Your task to perform on an android device: Check my email Image 0: 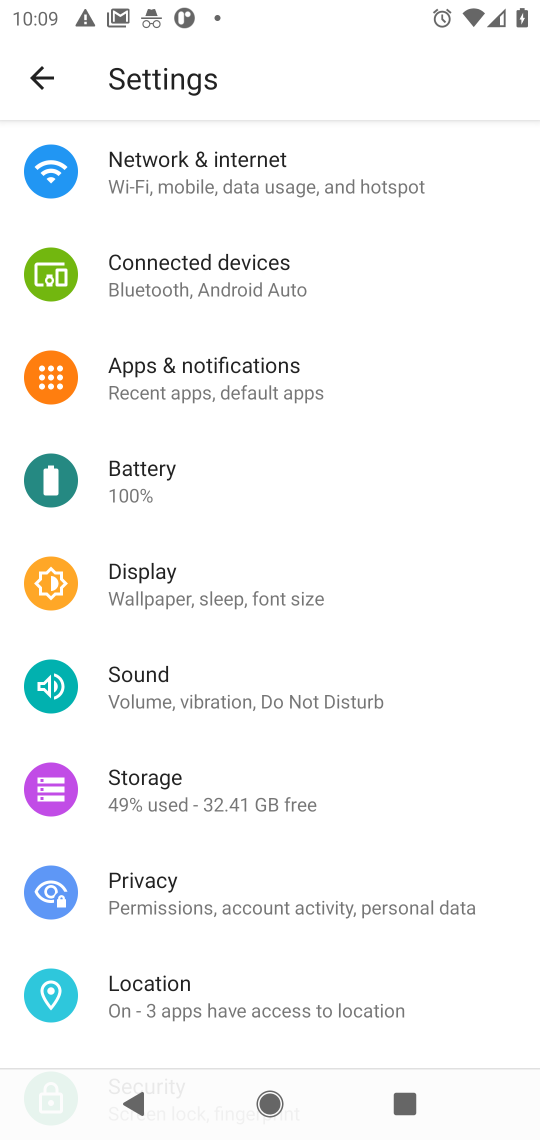
Step 0: press home button
Your task to perform on an android device: Check my email Image 1: 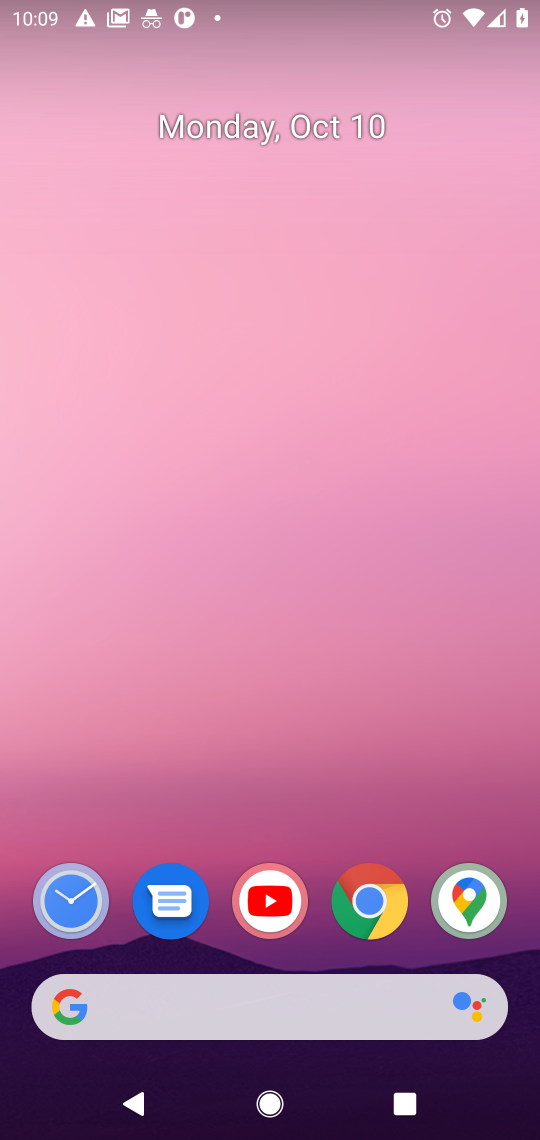
Step 1: drag from (457, 743) to (435, 155)
Your task to perform on an android device: Check my email Image 2: 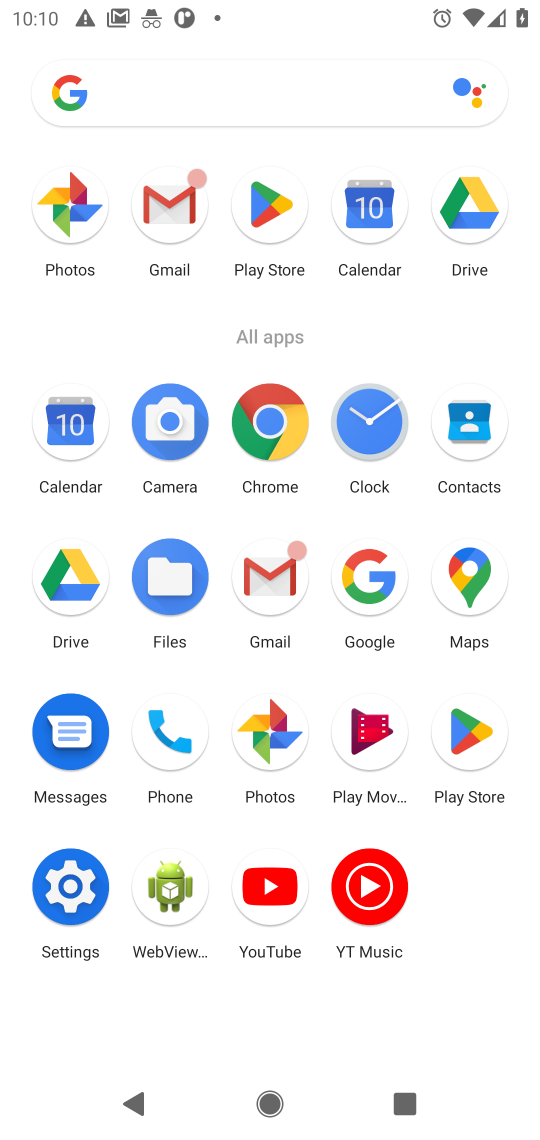
Step 2: click (284, 583)
Your task to perform on an android device: Check my email Image 3: 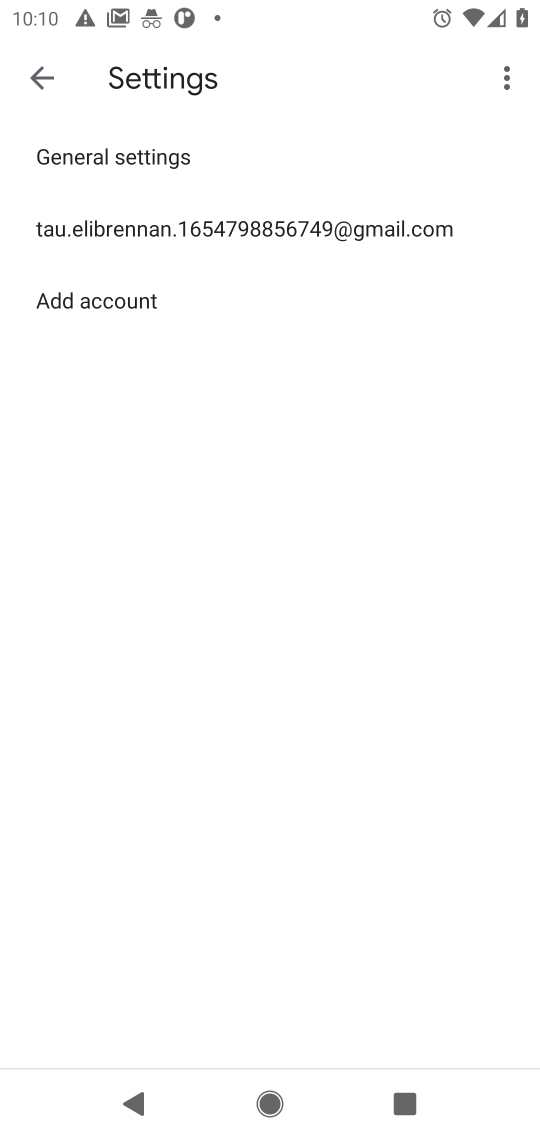
Step 3: press back button
Your task to perform on an android device: Check my email Image 4: 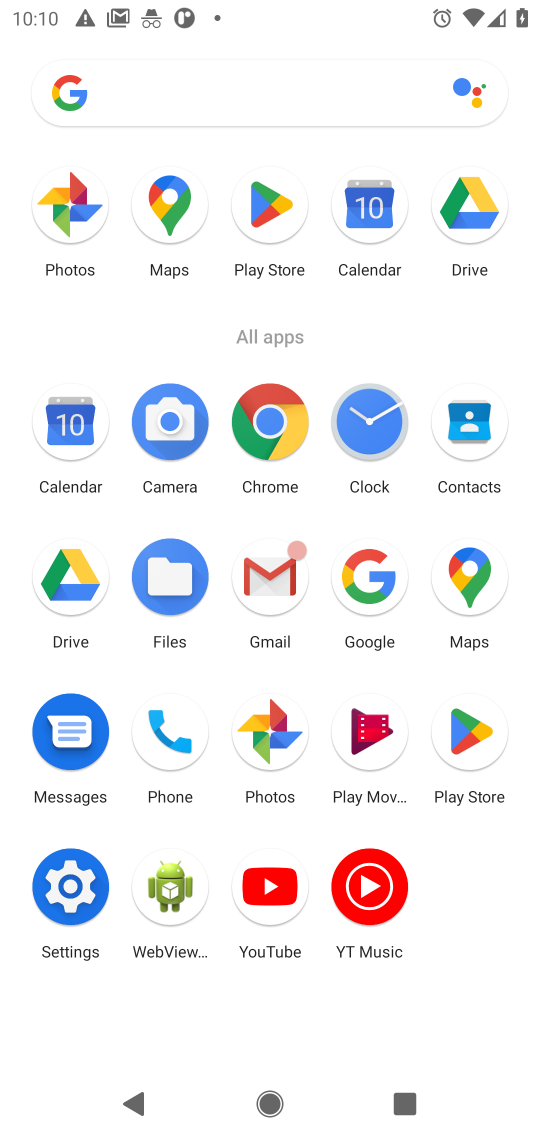
Step 4: click (272, 575)
Your task to perform on an android device: Check my email Image 5: 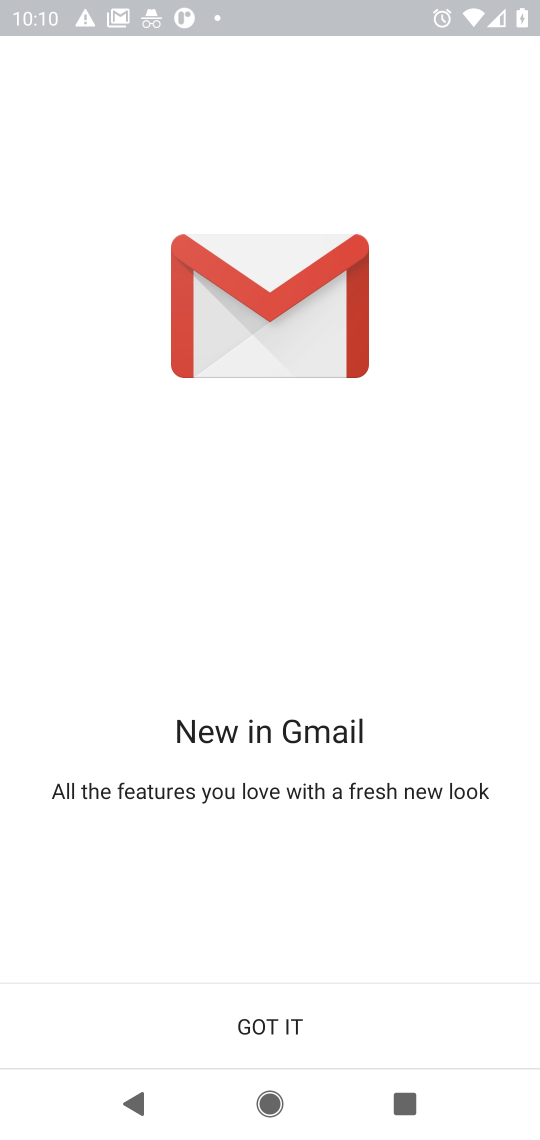
Step 5: click (266, 1024)
Your task to perform on an android device: Check my email Image 6: 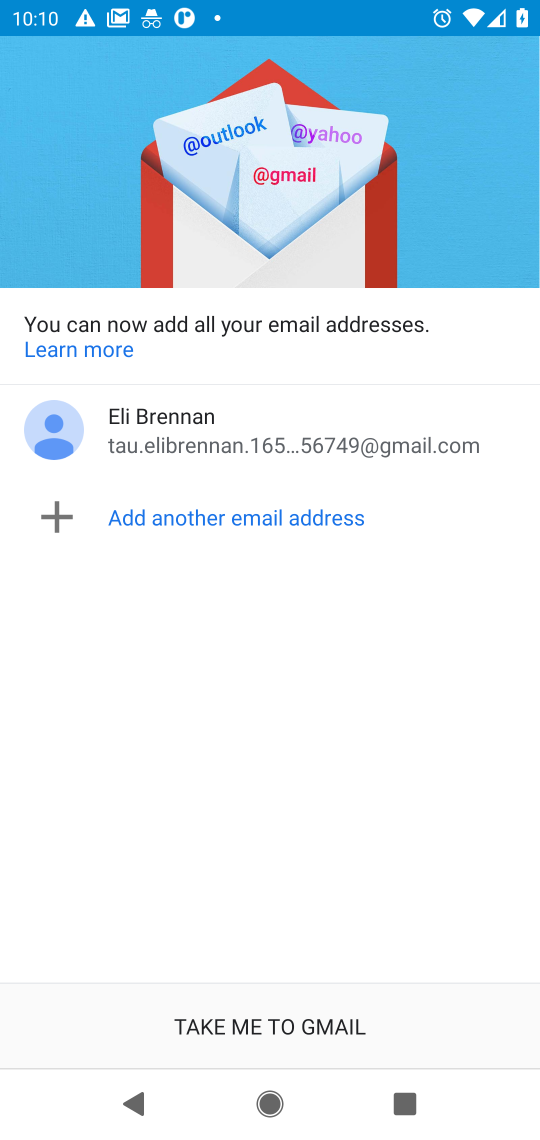
Step 6: click (266, 1024)
Your task to perform on an android device: Check my email Image 7: 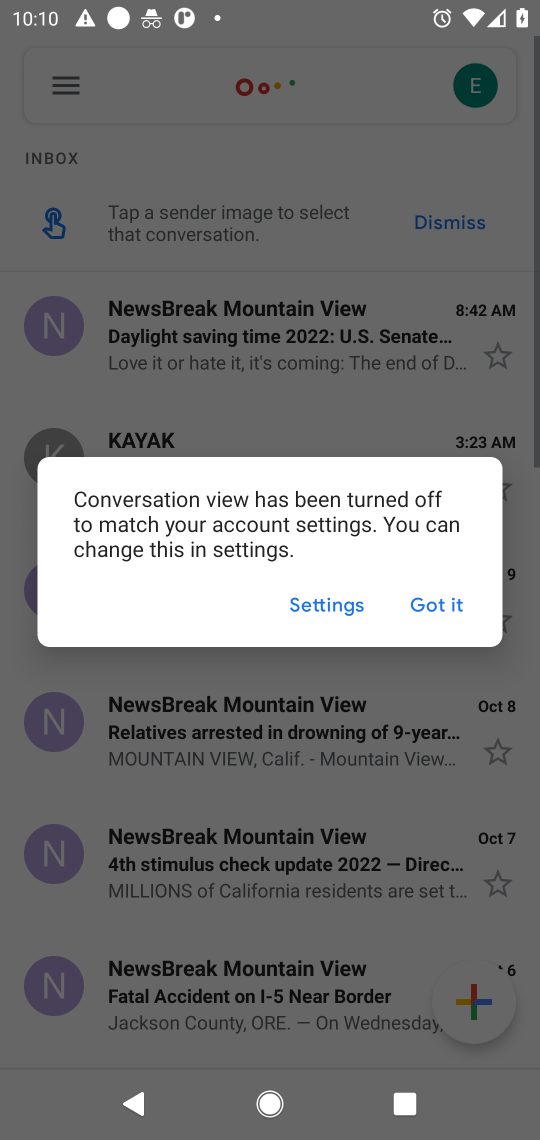
Step 7: click (445, 601)
Your task to perform on an android device: Check my email Image 8: 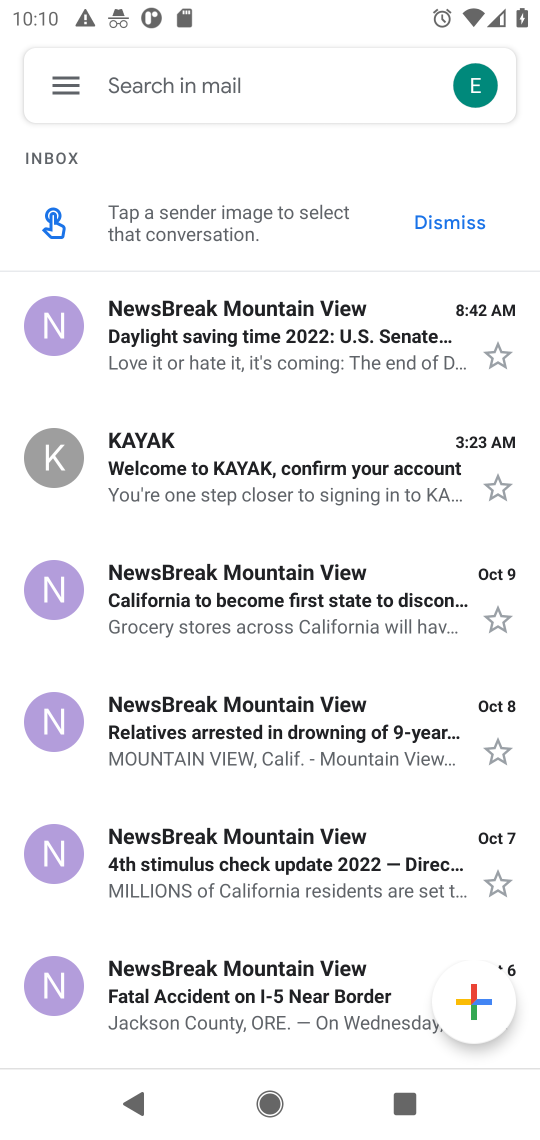
Step 8: task complete